Your task to perform on an android device: Go to eBay Image 0: 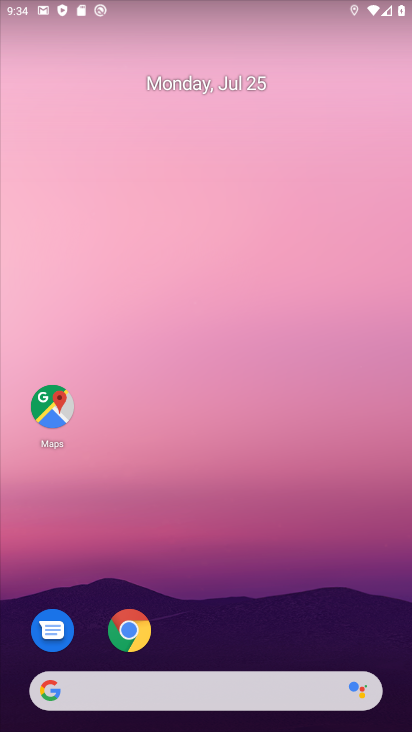
Step 0: press home button
Your task to perform on an android device: Go to eBay Image 1: 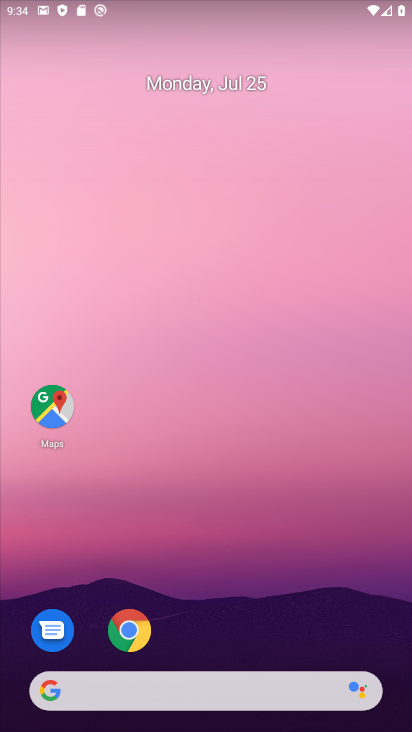
Step 1: click (47, 685)
Your task to perform on an android device: Go to eBay Image 2: 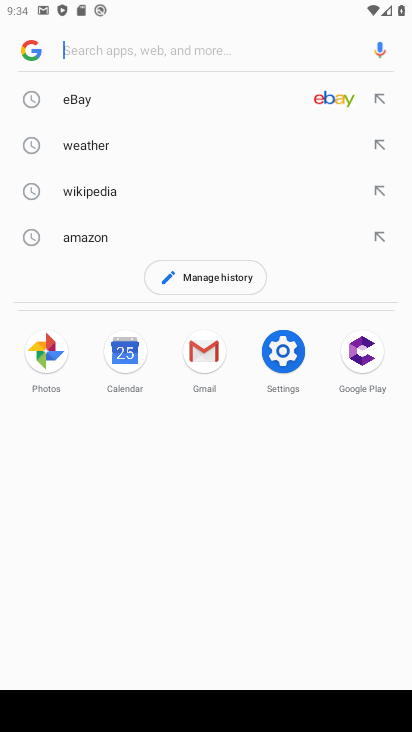
Step 2: click (338, 100)
Your task to perform on an android device: Go to eBay Image 3: 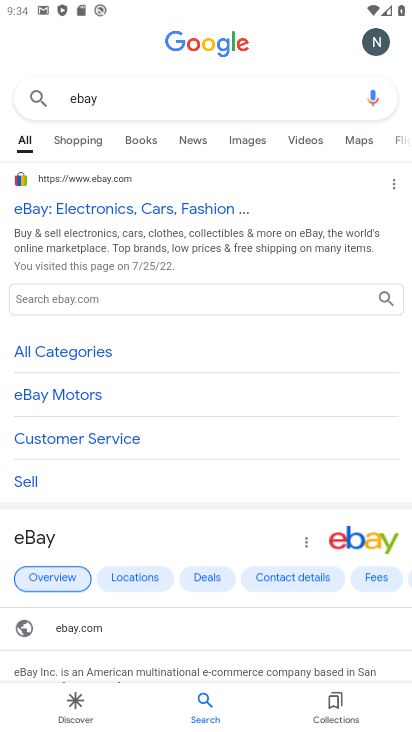
Step 3: click (118, 205)
Your task to perform on an android device: Go to eBay Image 4: 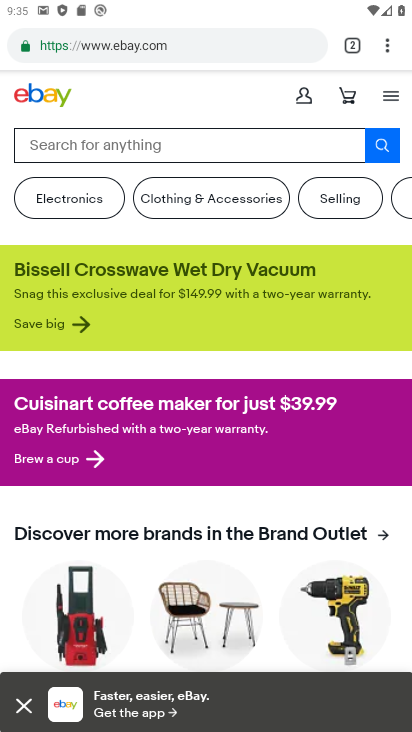
Step 4: task complete